Your task to perform on an android device: Open the phone app and click the voicemail tab. Image 0: 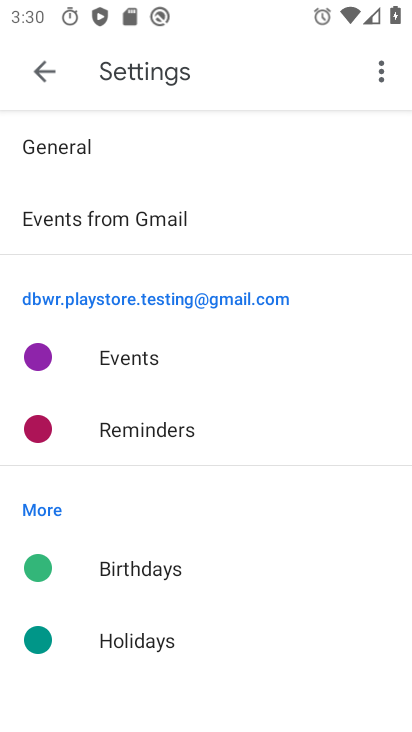
Step 0: press home button
Your task to perform on an android device: Open the phone app and click the voicemail tab. Image 1: 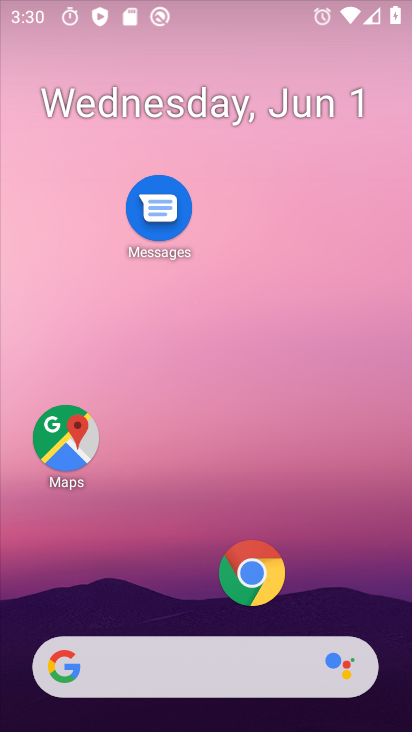
Step 1: drag from (154, 607) to (227, 236)
Your task to perform on an android device: Open the phone app and click the voicemail tab. Image 2: 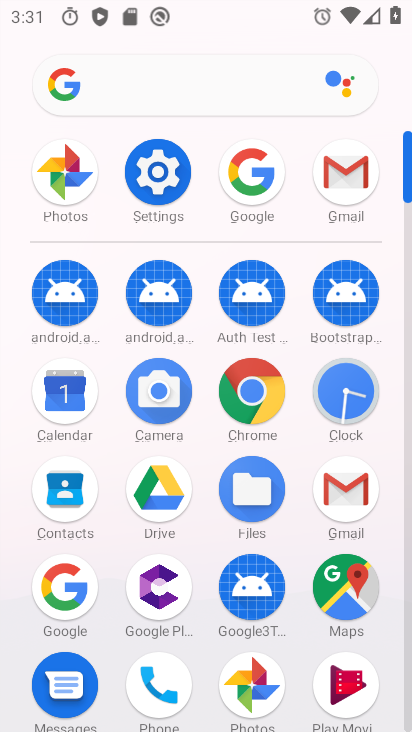
Step 2: click (150, 682)
Your task to perform on an android device: Open the phone app and click the voicemail tab. Image 3: 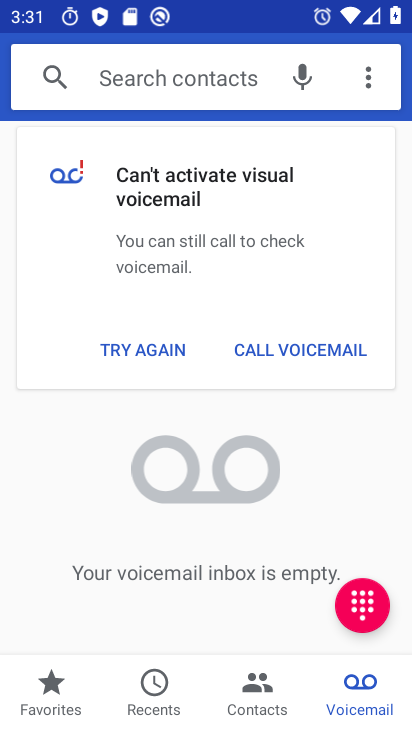
Step 3: task complete